Your task to perform on an android device: open a bookmark in the chrome app Image 0: 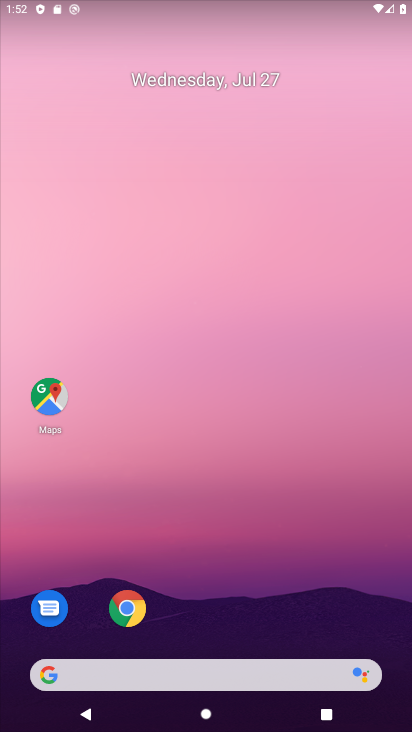
Step 0: click (139, 618)
Your task to perform on an android device: open a bookmark in the chrome app Image 1: 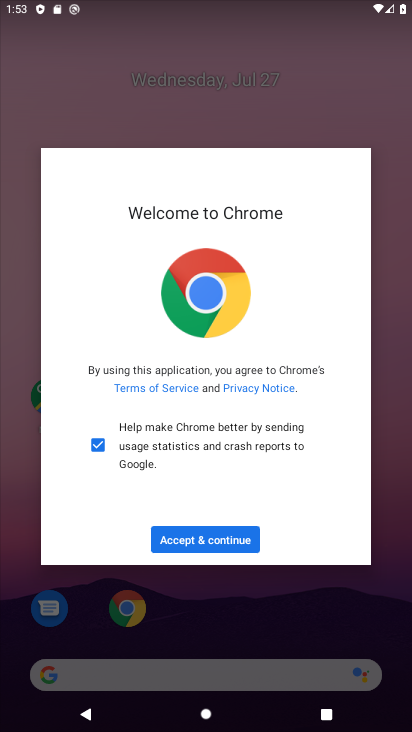
Step 1: click (235, 544)
Your task to perform on an android device: open a bookmark in the chrome app Image 2: 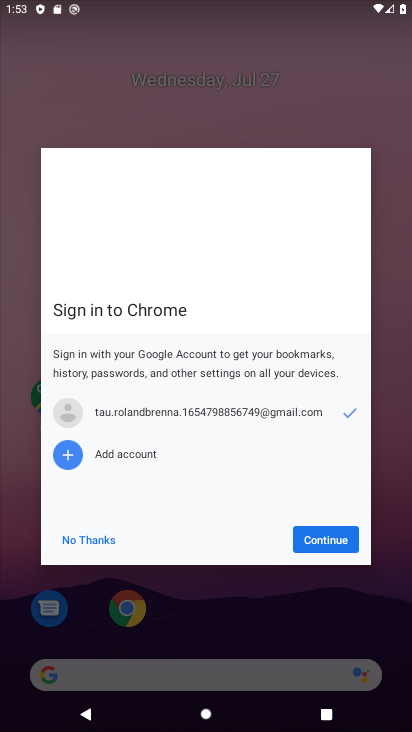
Step 2: click (74, 543)
Your task to perform on an android device: open a bookmark in the chrome app Image 3: 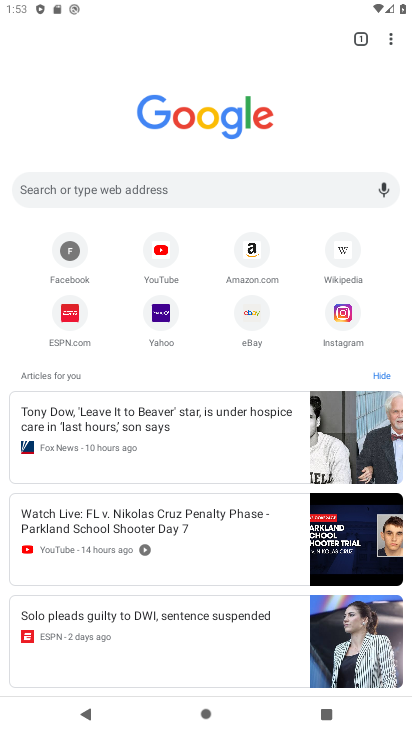
Step 3: click (392, 41)
Your task to perform on an android device: open a bookmark in the chrome app Image 4: 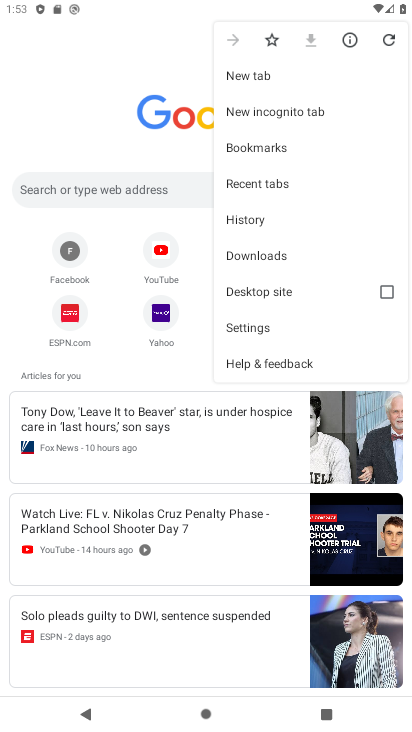
Step 4: click (264, 149)
Your task to perform on an android device: open a bookmark in the chrome app Image 5: 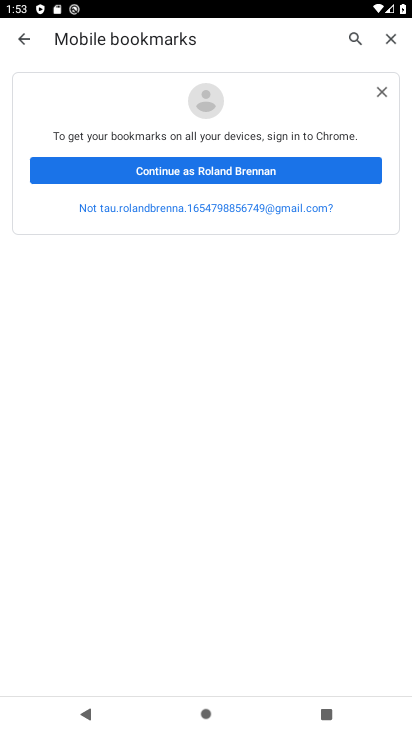
Step 5: task complete